Your task to perform on an android device: Open Google Chrome Image 0: 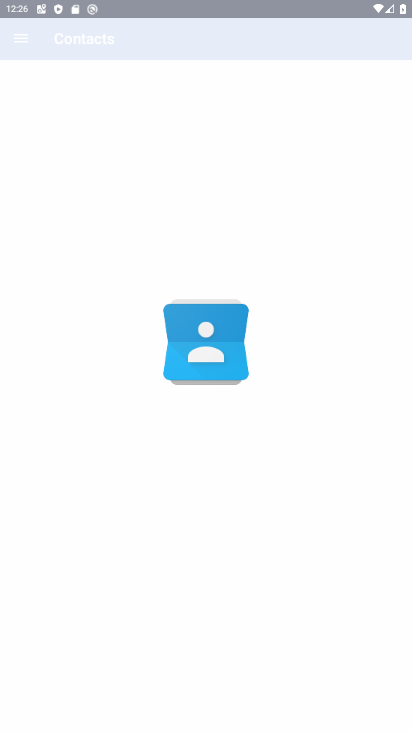
Step 0: press home button
Your task to perform on an android device: Open Google Chrome Image 1: 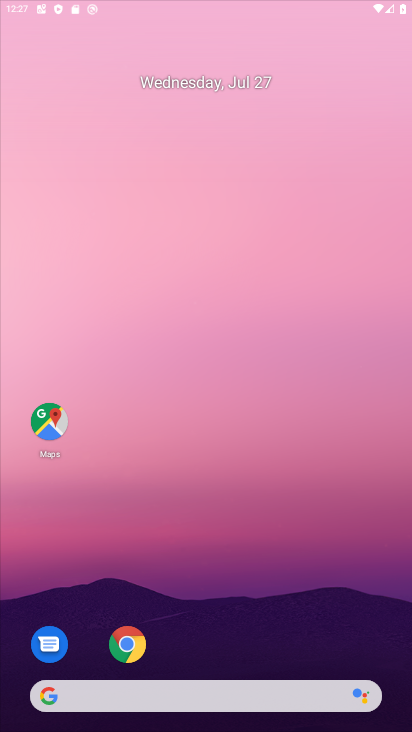
Step 1: drag from (238, 638) to (230, 172)
Your task to perform on an android device: Open Google Chrome Image 2: 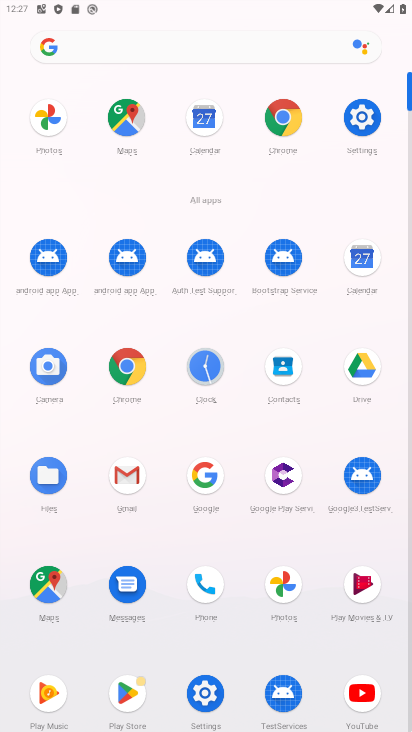
Step 2: click (278, 132)
Your task to perform on an android device: Open Google Chrome Image 3: 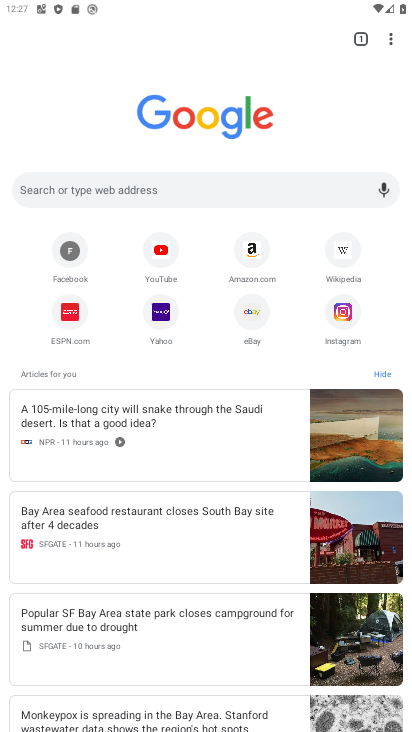
Step 3: task complete